Your task to perform on an android device: change the clock style Image 0: 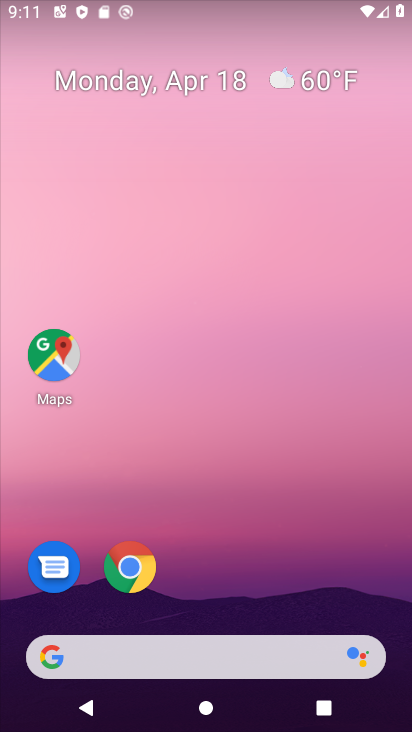
Step 0: drag from (210, 472) to (253, 47)
Your task to perform on an android device: change the clock style Image 1: 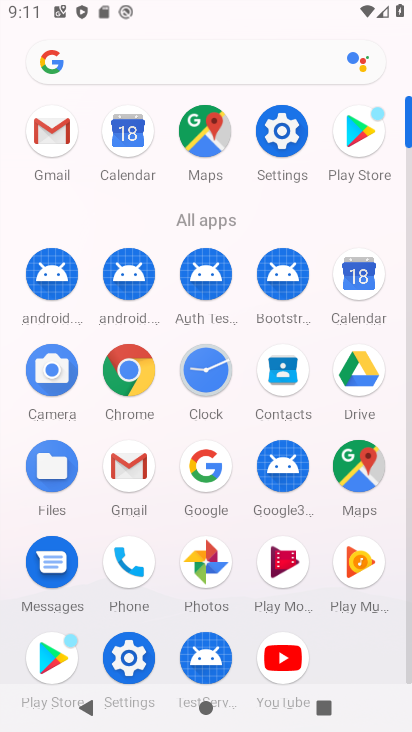
Step 1: click (207, 371)
Your task to perform on an android device: change the clock style Image 2: 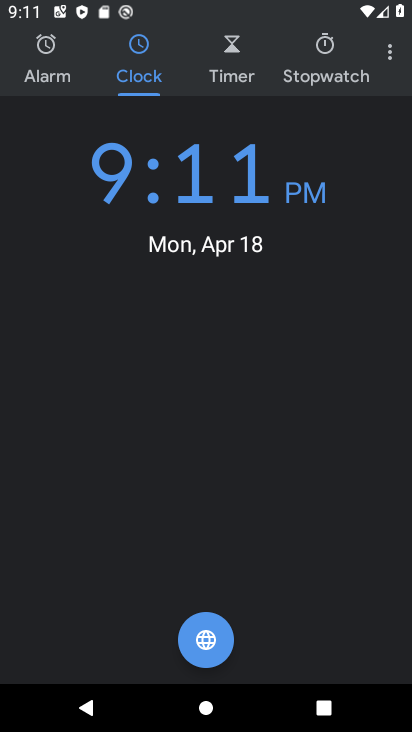
Step 2: click (390, 48)
Your task to perform on an android device: change the clock style Image 3: 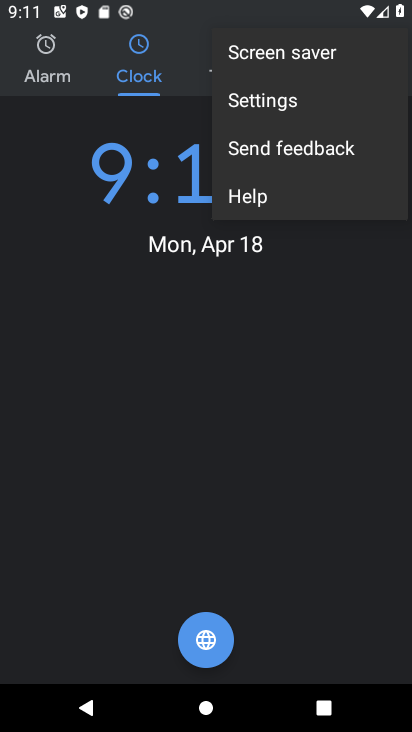
Step 3: click (303, 115)
Your task to perform on an android device: change the clock style Image 4: 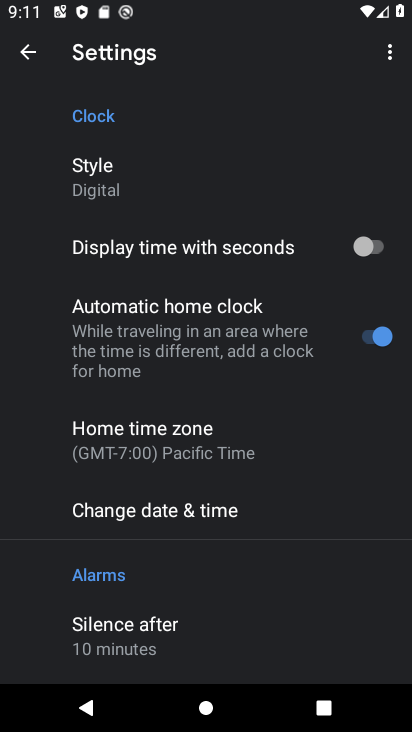
Step 4: click (165, 173)
Your task to perform on an android device: change the clock style Image 5: 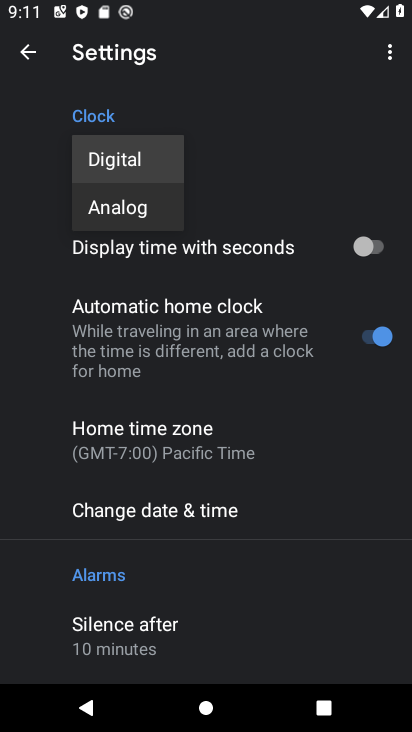
Step 5: click (136, 196)
Your task to perform on an android device: change the clock style Image 6: 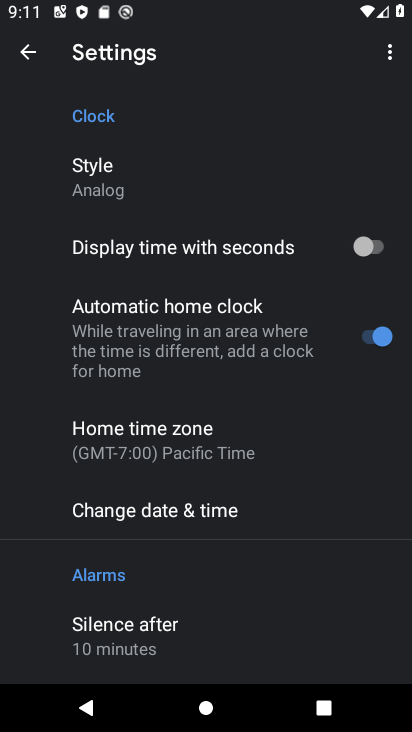
Step 6: task complete